Your task to perform on an android device: toggle translation in the chrome app Image 0: 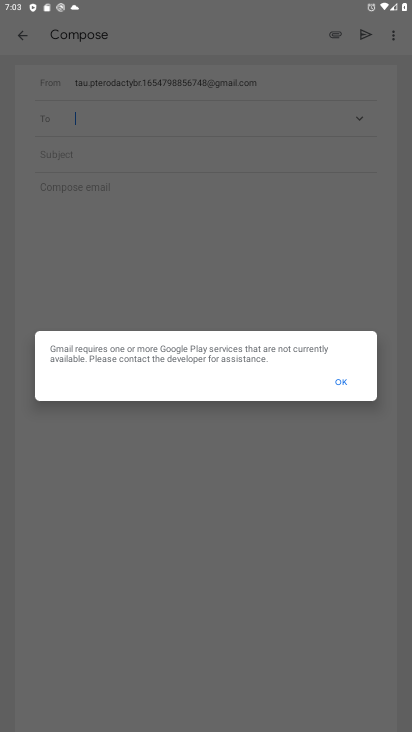
Step 0: press home button
Your task to perform on an android device: toggle translation in the chrome app Image 1: 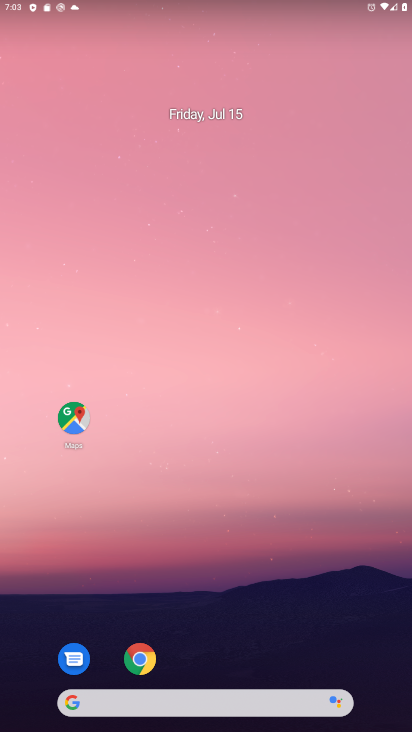
Step 1: click (140, 661)
Your task to perform on an android device: toggle translation in the chrome app Image 2: 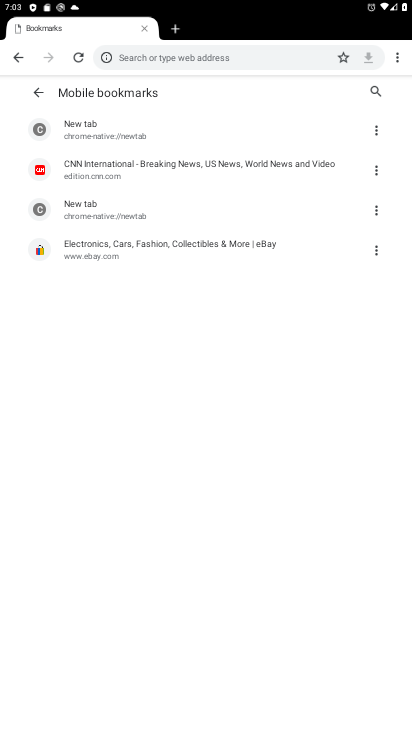
Step 2: click (397, 61)
Your task to perform on an android device: toggle translation in the chrome app Image 3: 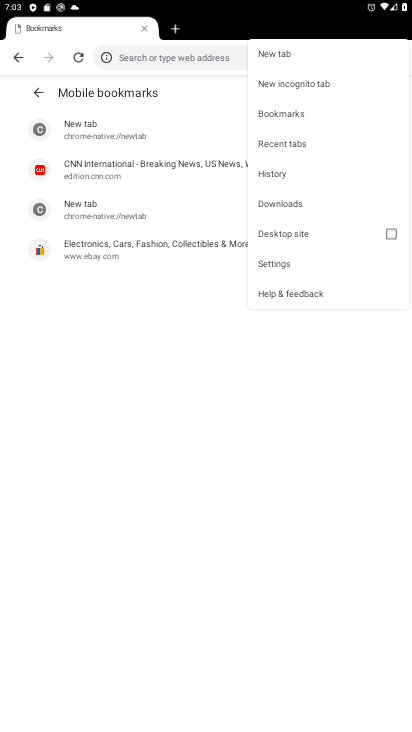
Step 3: click (267, 263)
Your task to perform on an android device: toggle translation in the chrome app Image 4: 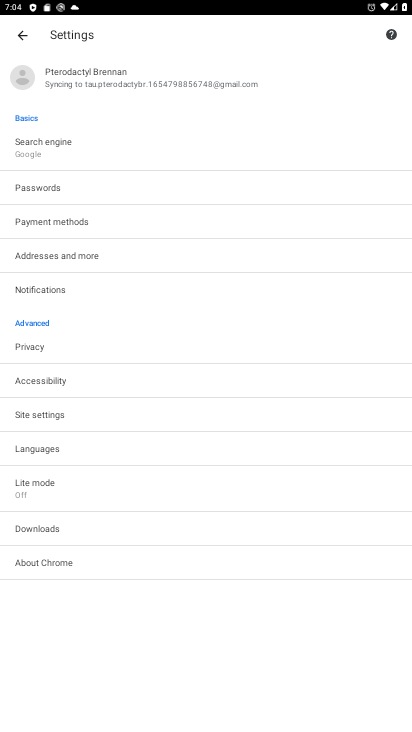
Step 4: click (42, 447)
Your task to perform on an android device: toggle translation in the chrome app Image 5: 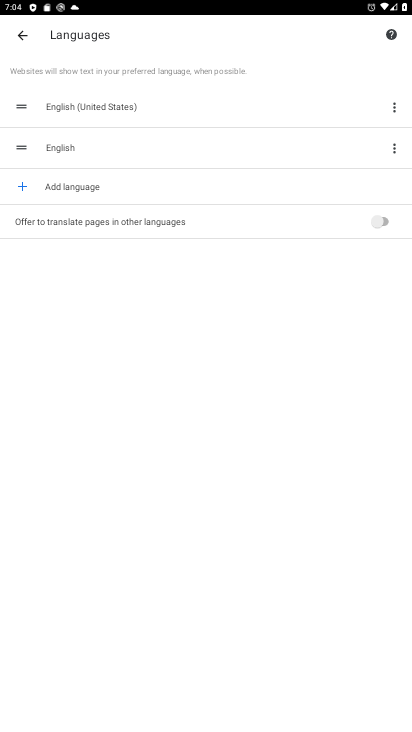
Step 5: click (384, 222)
Your task to perform on an android device: toggle translation in the chrome app Image 6: 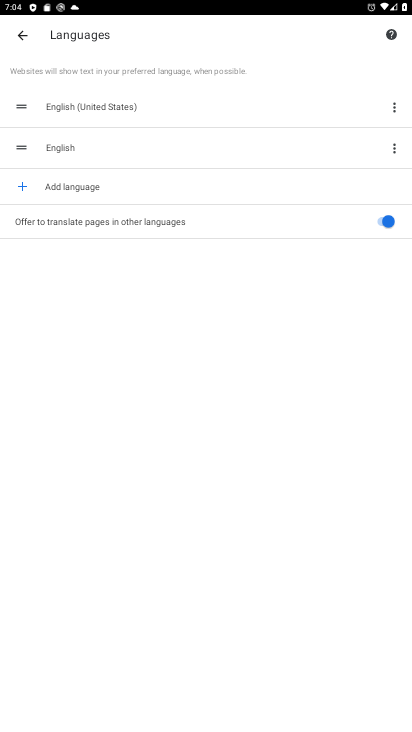
Step 6: task complete